Your task to perform on an android device: turn on bluetooth scan Image 0: 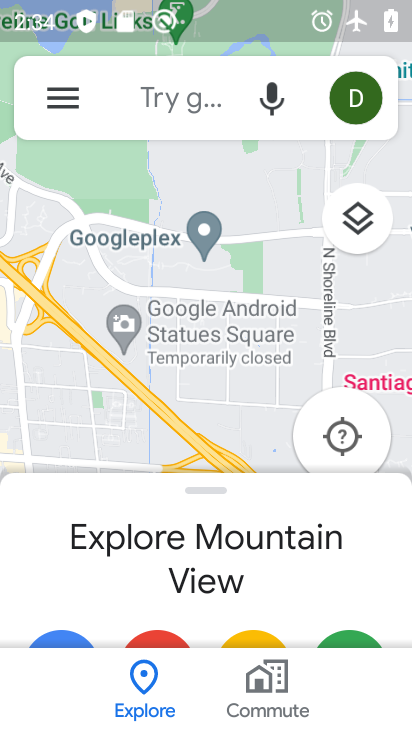
Step 0: press home button
Your task to perform on an android device: turn on bluetooth scan Image 1: 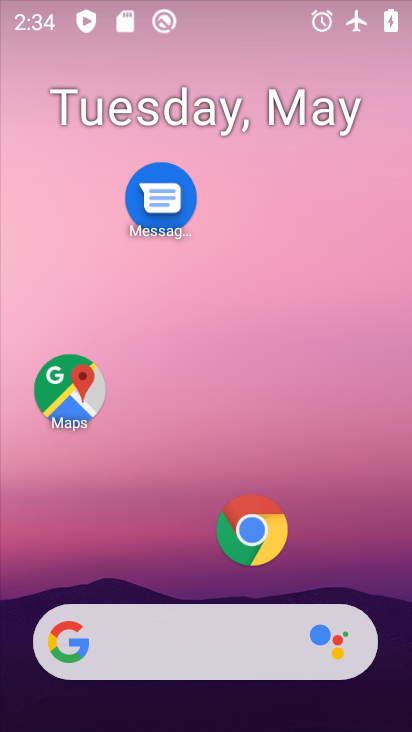
Step 1: drag from (169, 571) to (214, 224)
Your task to perform on an android device: turn on bluetooth scan Image 2: 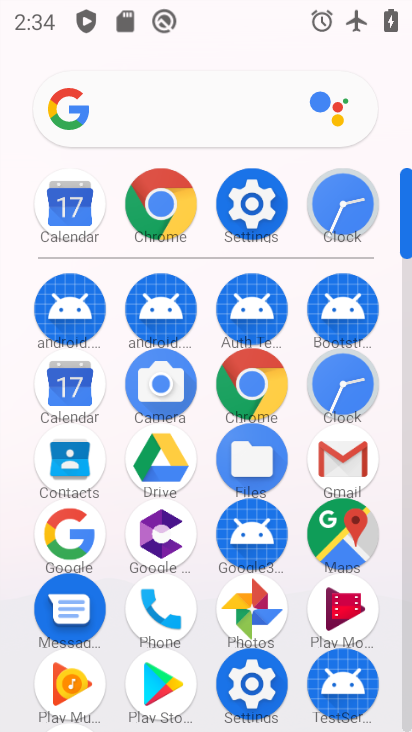
Step 2: click (262, 193)
Your task to perform on an android device: turn on bluetooth scan Image 3: 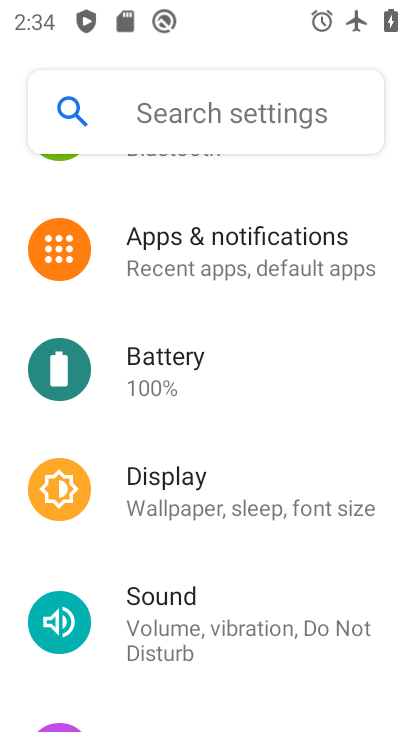
Step 3: drag from (276, 566) to (290, 351)
Your task to perform on an android device: turn on bluetooth scan Image 4: 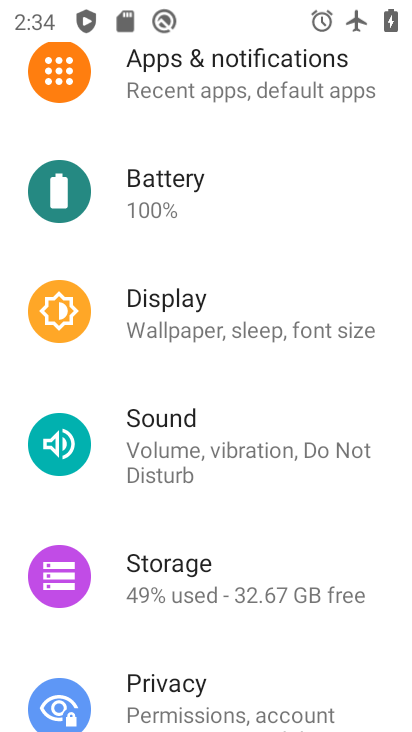
Step 4: drag from (218, 635) to (244, 396)
Your task to perform on an android device: turn on bluetooth scan Image 5: 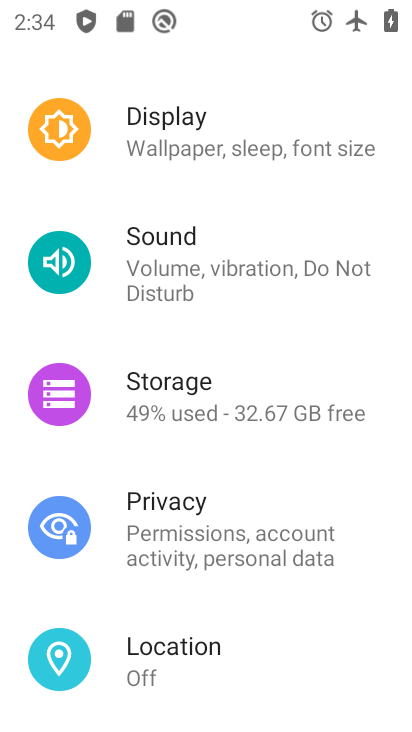
Step 5: click (205, 646)
Your task to perform on an android device: turn on bluetooth scan Image 6: 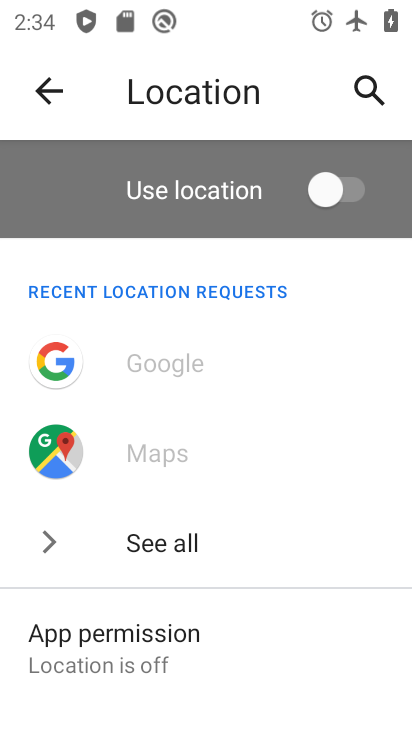
Step 6: drag from (201, 635) to (295, 401)
Your task to perform on an android device: turn on bluetooth scan Image 7: 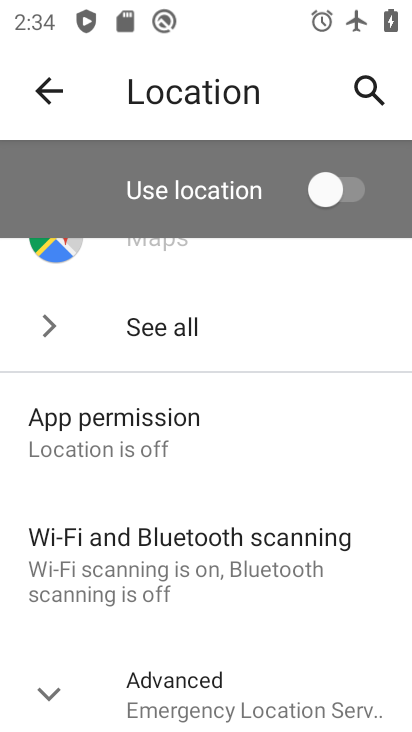
Step 7: click (244, 584)
Your task to perform on an android device: turn on bluetooth scan Image 8: 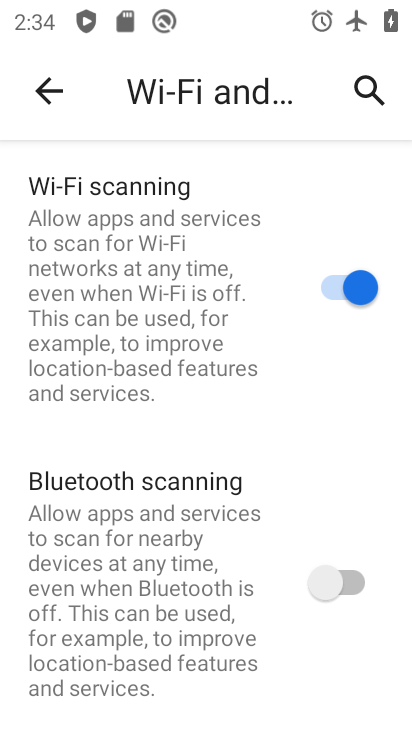
Step 8: click (340, 583)
Your task to perform on an android device: turn on bluetooth scan Image 9: 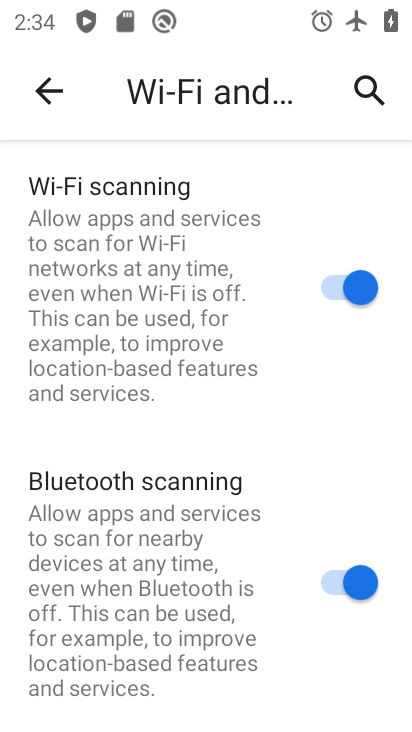
Step 9: task complete